Your task to perform on an android device: change the clock style Image 0: 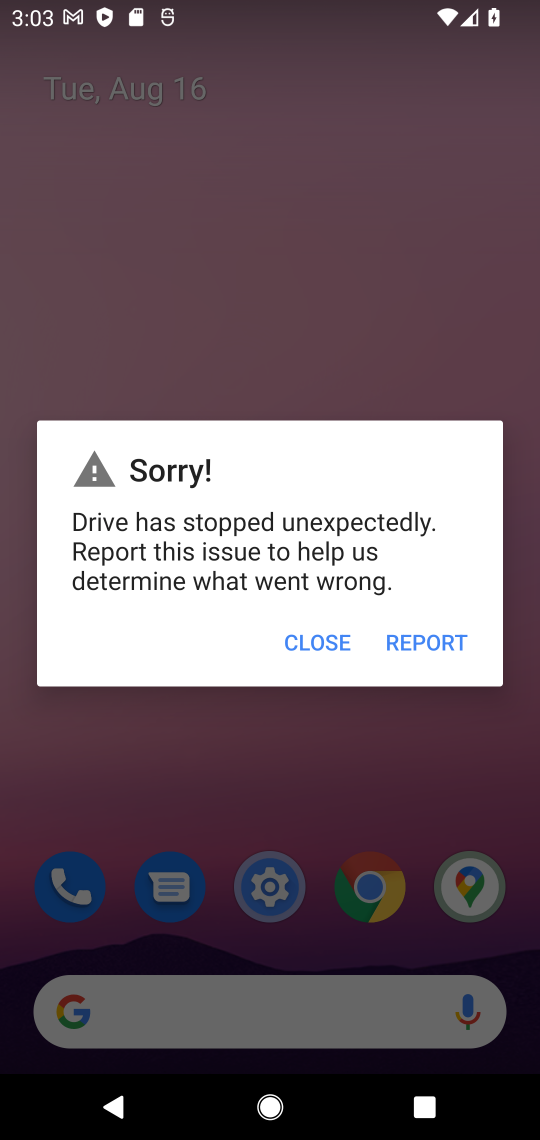
Step 0: press home button
Your task to perform on an android device: change the clock style Image 1: 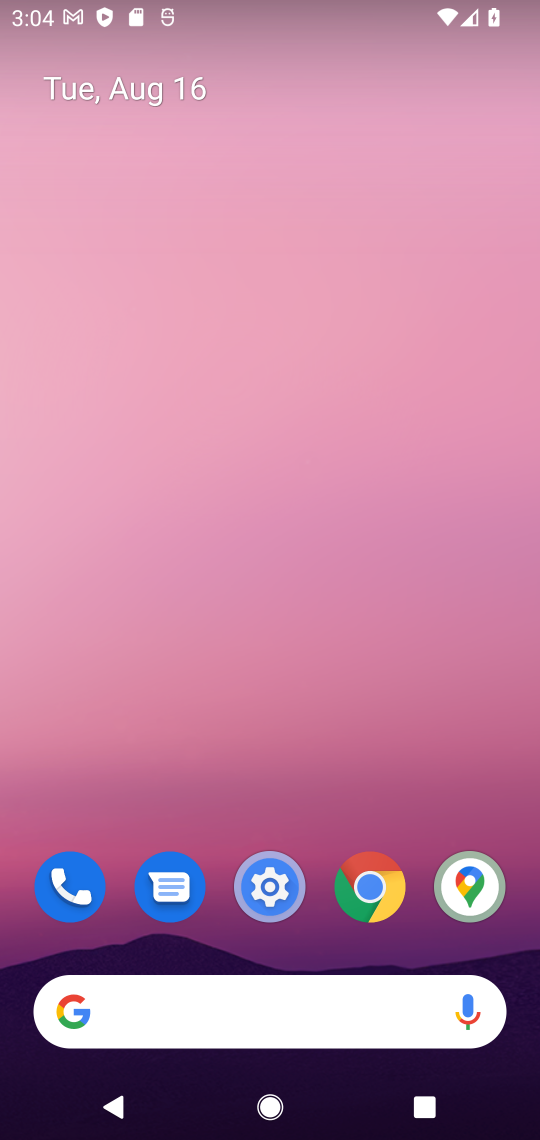
Step 1: drag from (339, 749) to (363, 54)
Your task to perform on an android device: change the clock style Image 2: 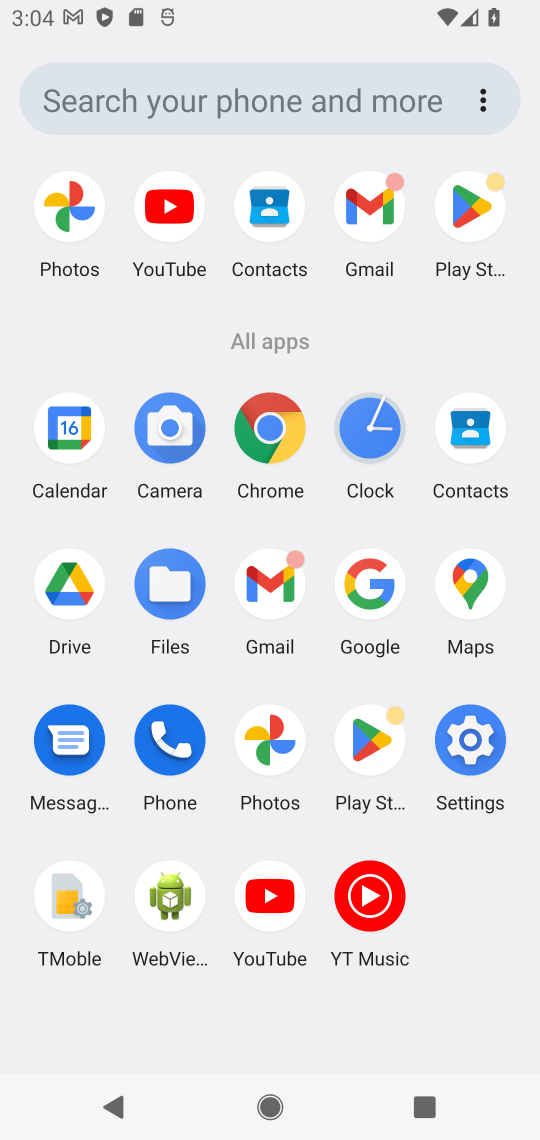
Step 2: click (372, 423)
Your task to perform on an android device: change the clock style Image 3: 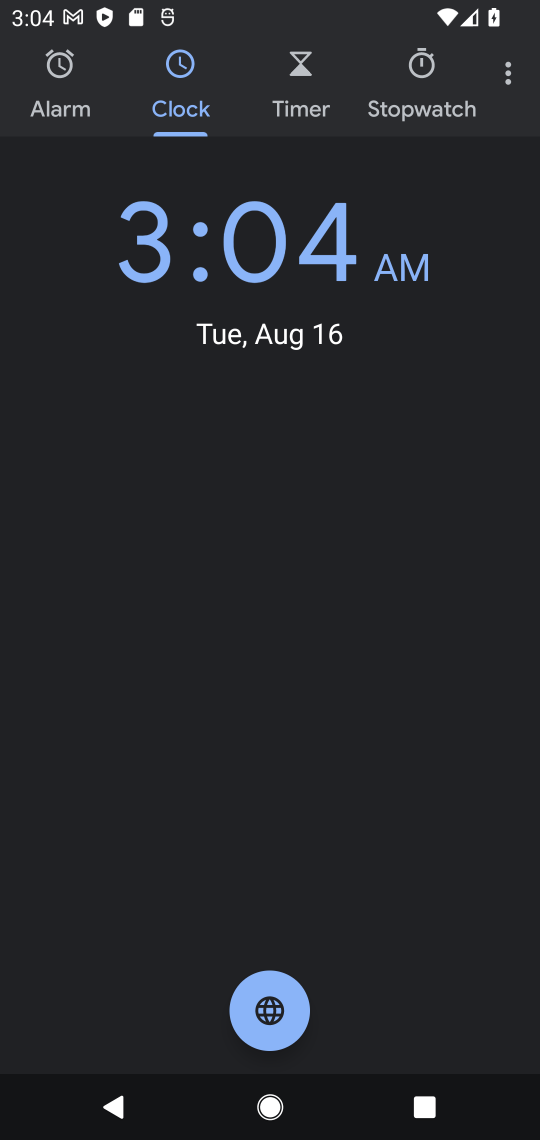
Step 3: click (518, 66)
Your task to perform on an android device: change the clock style Image 4: 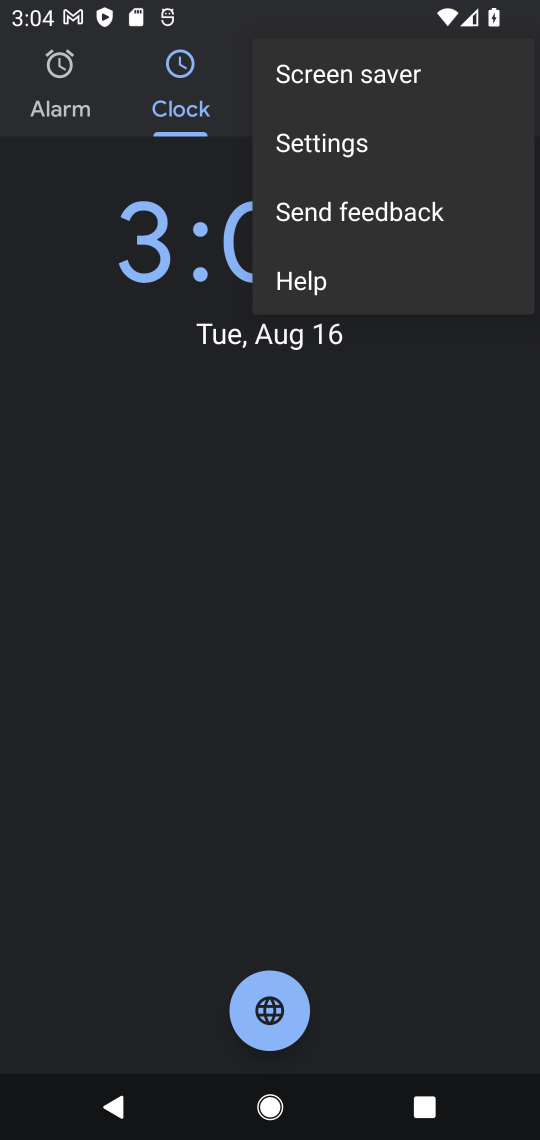
Step 4: click (365, 162)
Your task to perform on an android device: change the clock style Image 5: 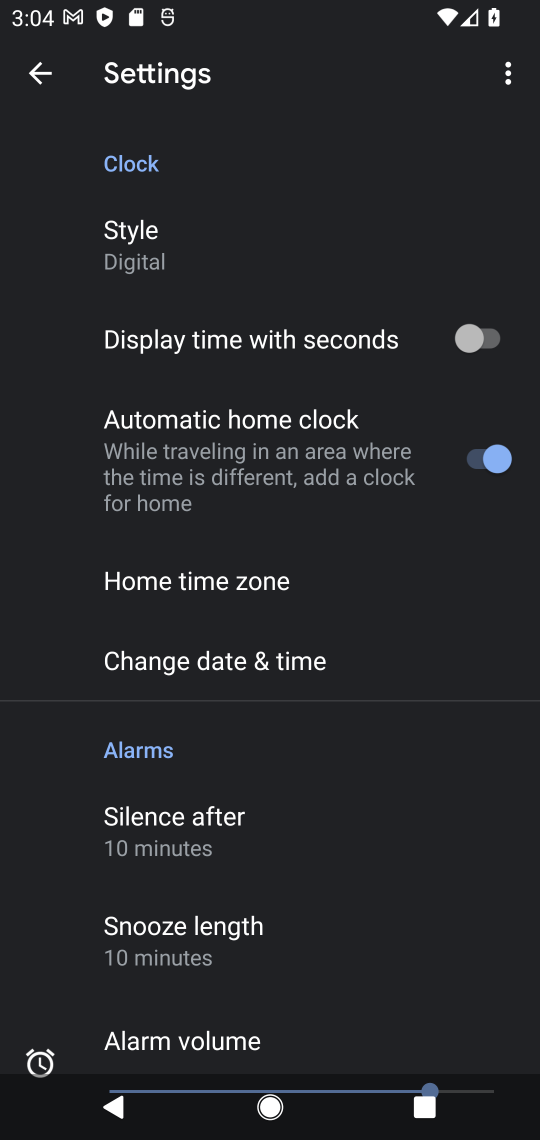
Step 5: click (123, 240)
Your task to perform on an android device: change the clock style Image 6: 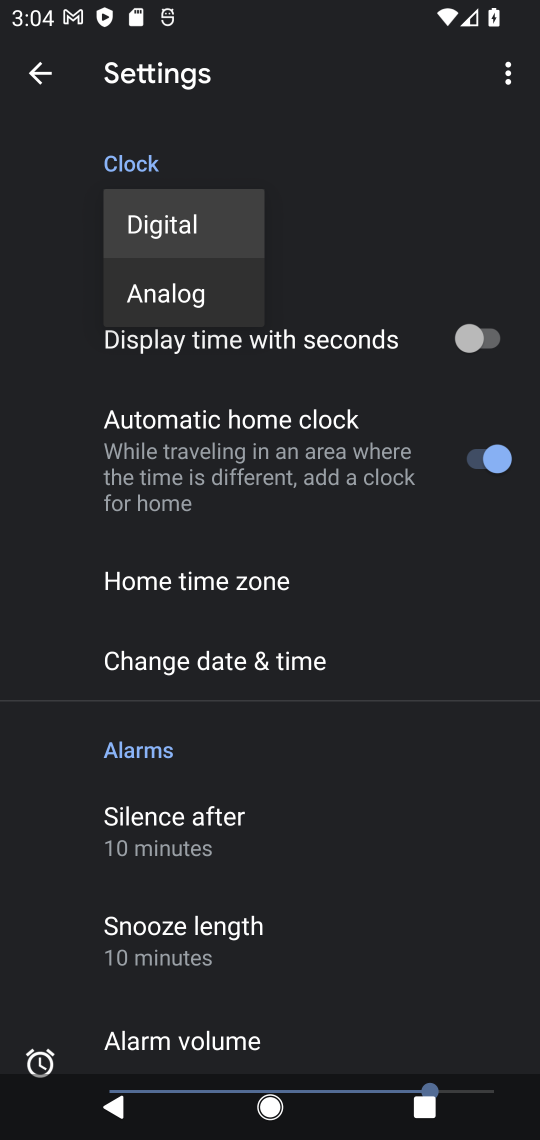
Step 6: click (189, 305)
Your task to perform on an android device: change the clock style Image 7: 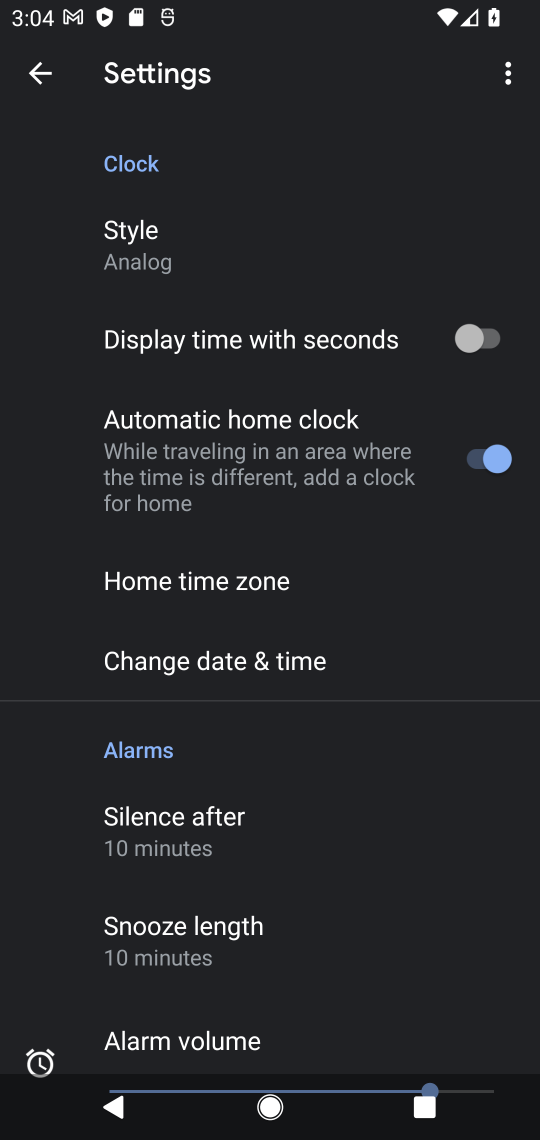
Step 7: task complete